Your task to perform on an android device: toggle wifi Image 0: 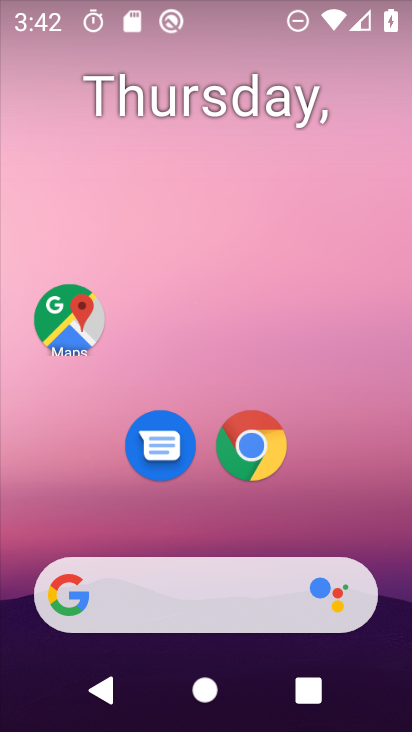
Step 0: drag from (333, 499) to (242, 60)
Your task to perform on an android device: toggle wifi Image 1: 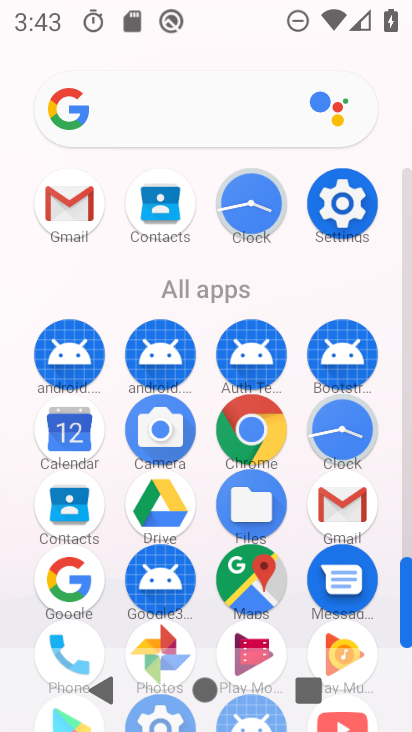
Step 1: click (341, 203)
Your task to perform on an android device: toggle wifi Image 2: 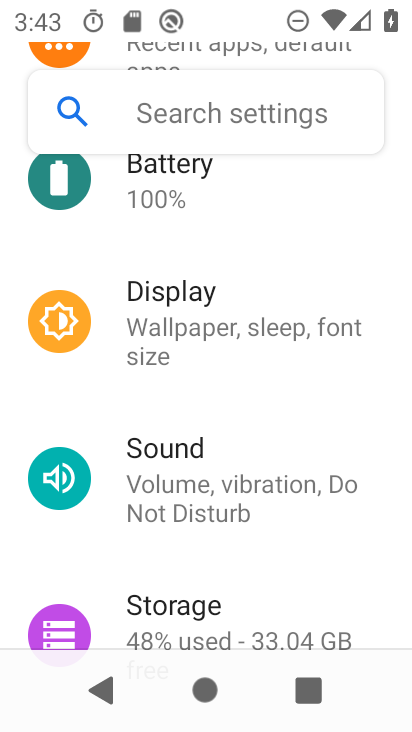
Step 2: drag from (237, 274) to (242, 360)
Your task to perform on an android device: toggle wifi Image 3: 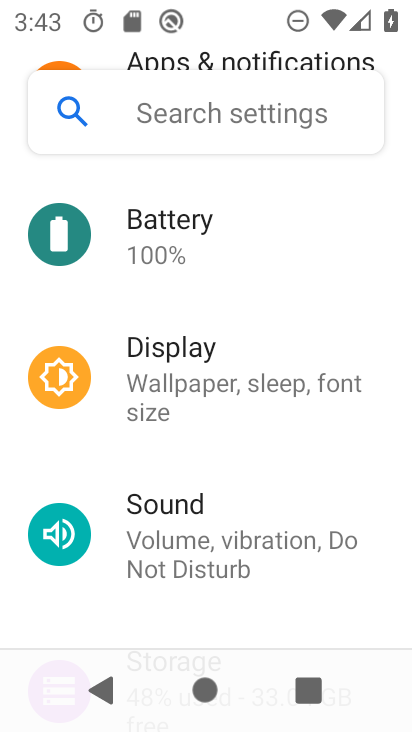
Step 3: drag from (225, 246) to (246, 362)
Your task to perform on an android device: toggle wifi Image 4: 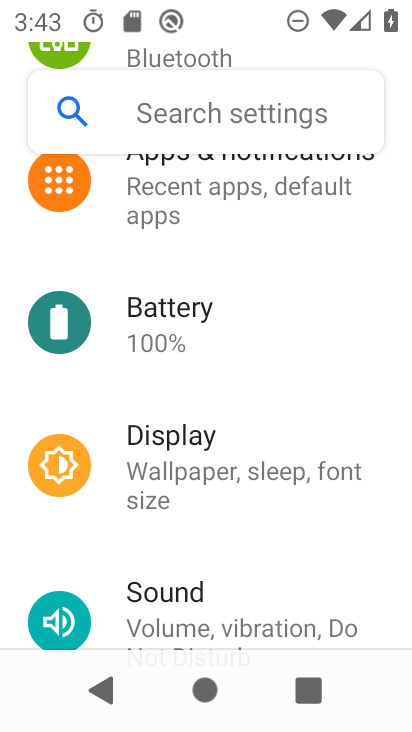
Step 4: drag from (208, 255) to (235, 402)
Your task to perform on an android device: toggle wifi Image 5: 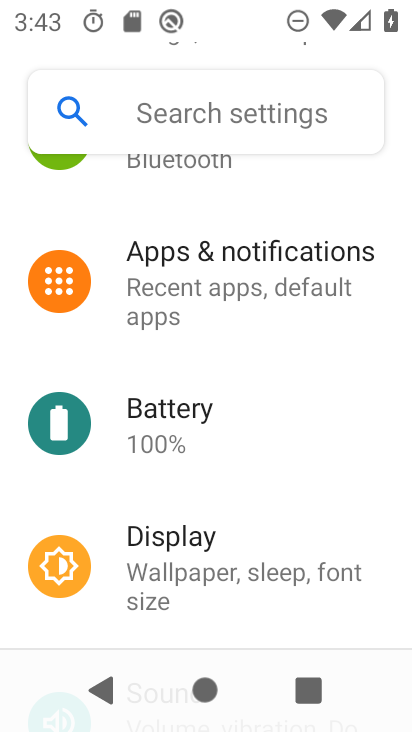
Step 5: drag from (263, 223) to (303, 446)
Your task to perform on an android device: toggle wifi Image 6: 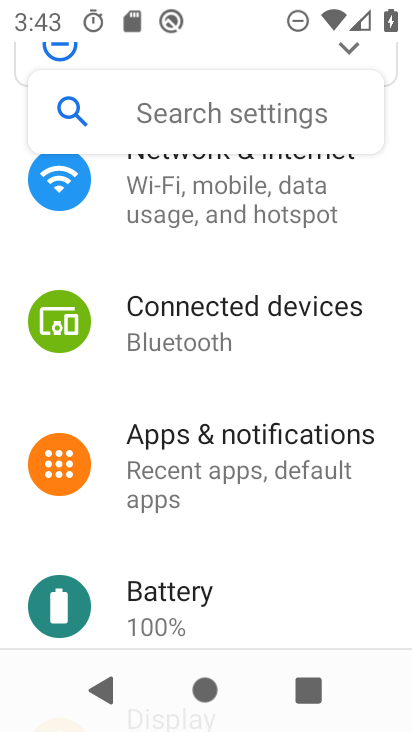
Step 6: drag from (246, 246) to (279, 412)
Your task to perform on an android device: toggle wifi Image 7: 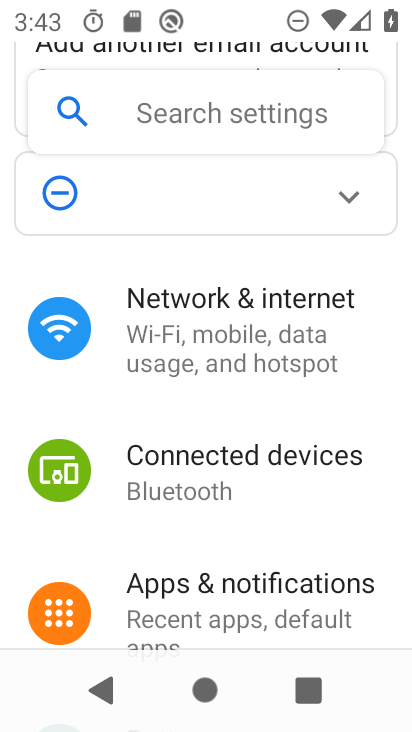
Step 7: click (241, 293)
Your task to perform on an android device: toggle wifi Image 8: 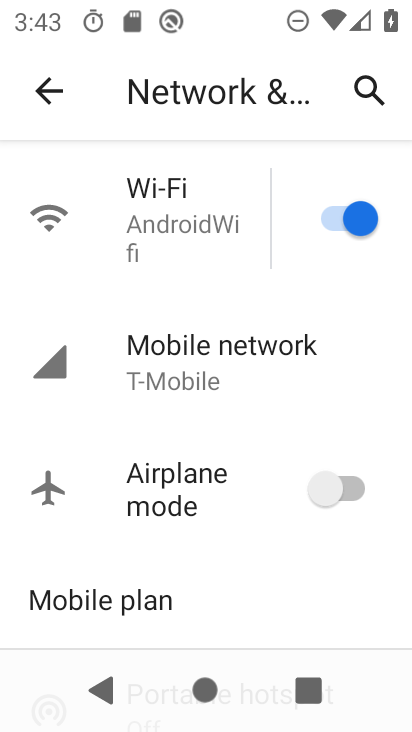
Step 8: click (368, 223)
Your task to perform on an android device: toggle wifi Image 9: 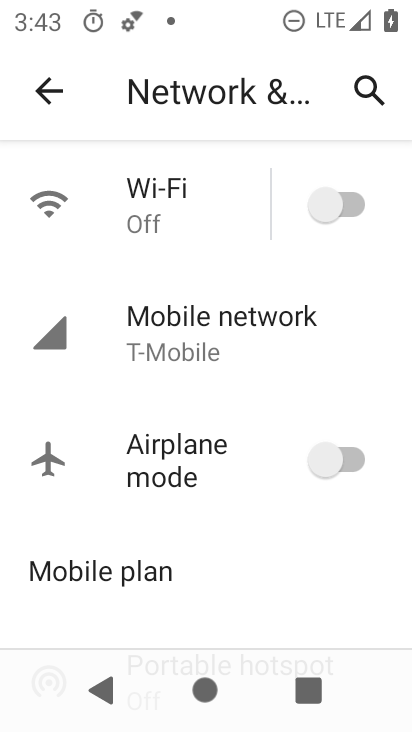
Step 9: task complete